Your task to perform on an android device: Play the last video I watched on Youtube Image 0: 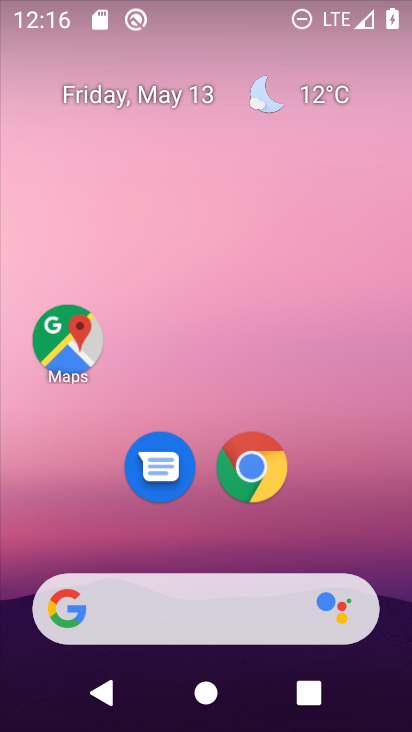
Step 0: drag from (339, 525) to (274, 15)
Your task to perform on an android device: Play the last video I watched on Youtube Image 1: 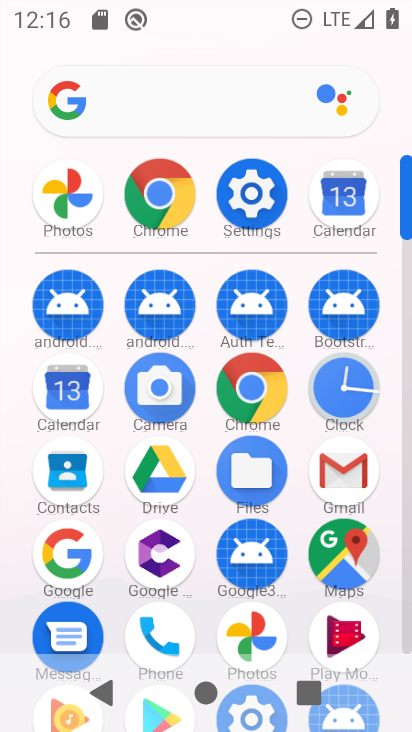
Step 1: drag from (11, 556) to (22, 245)
Your task to perform on an android device: Play the last video I watched on Youtube Image 2: 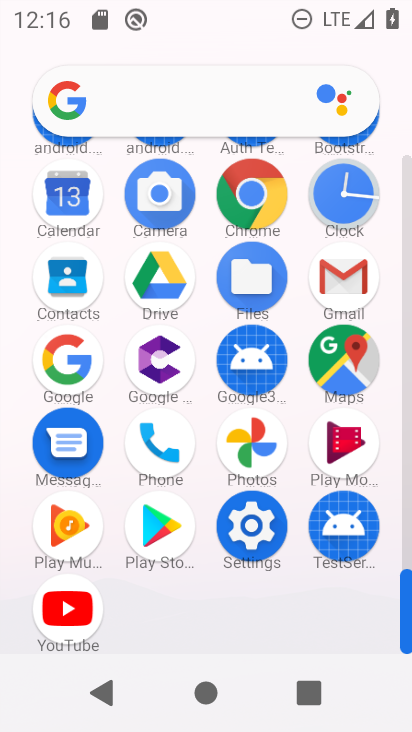
Step 2: click (68, 604)
Your task to perform on an android device: Play the last video I watched on Youtube Image 3: 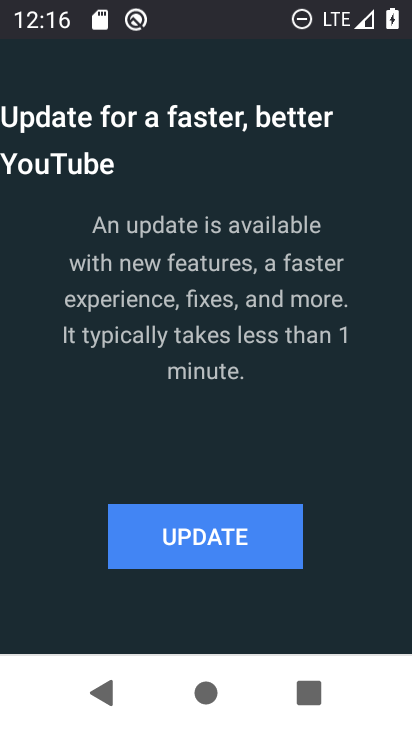
Step 3: click (174, 517)
Your task to perform on an android device: Play the last video I watched on Youtube Image 4: 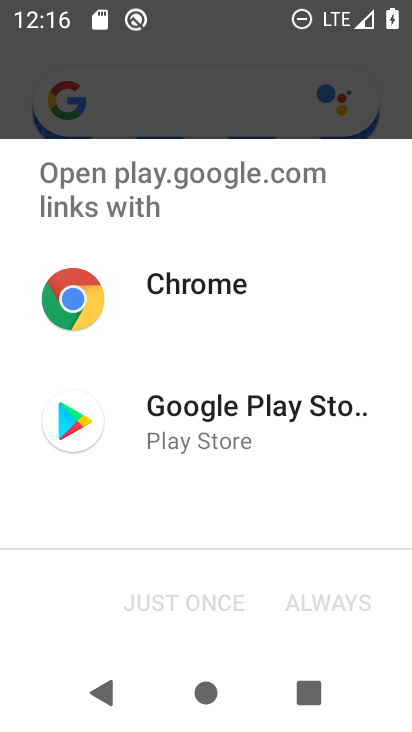
Step 4: click (187, 449)
Your task to perform on an android device: Play the last video I watched on Youtube Image 5: 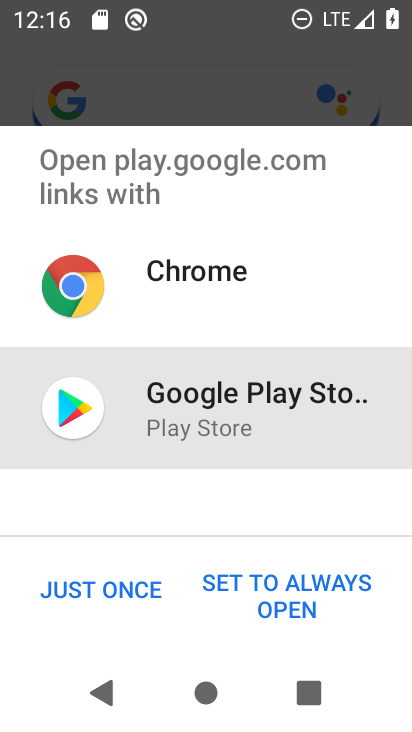
Step 5: click (114, 586)
Your task to perform on an android device: Play the last video I watched on Youtube Image 6: 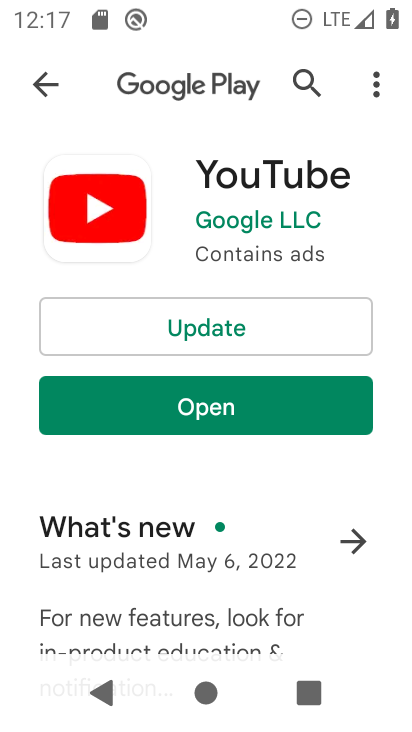
Step 6: click (243, 308)
Your task to perform on an android device: Play the last video I watched on Youtube Image 7: 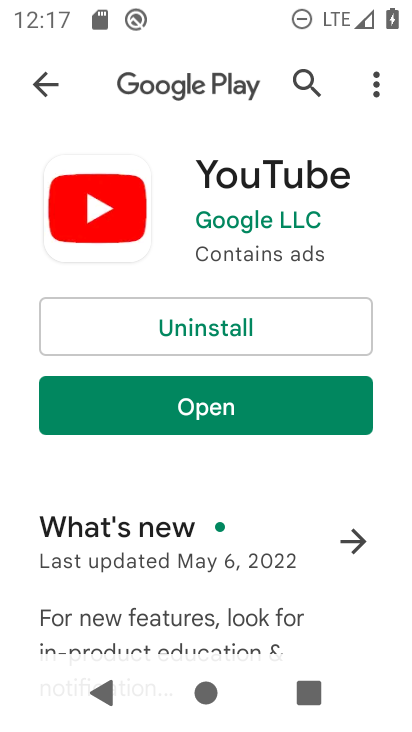
Step 7: click (215, 412)
Your task to perform on an android device: Play the last video I watched on Youtube Image 8: 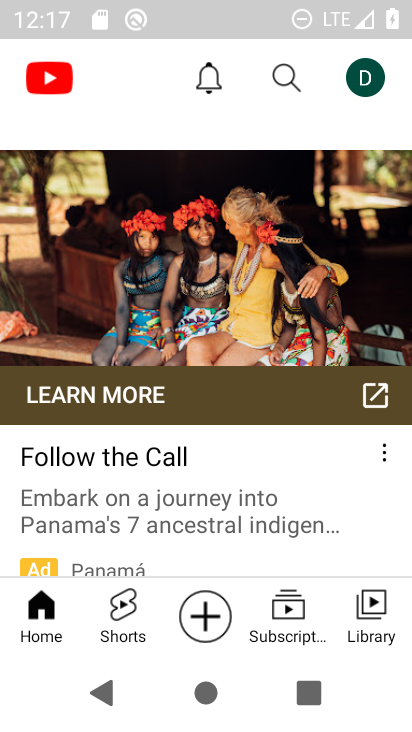
Step 8: click (366, 630)
Your task to perform on an android device: Play the last video I watched on Youtube Image 9: 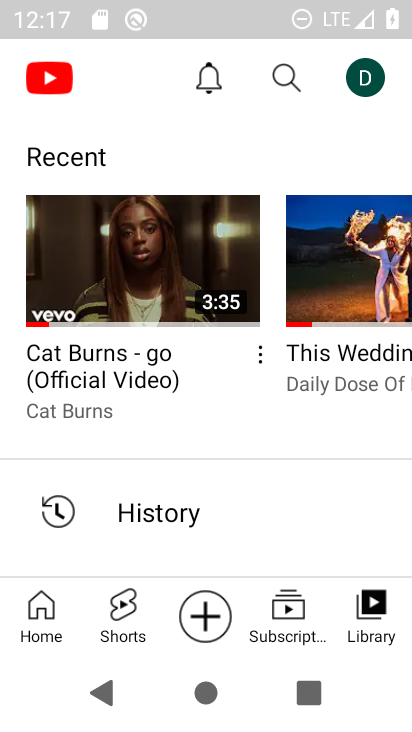
Step 9: click (156, 238)
Your task to perform on an android device: Play the last video I watched on Youtube Image 10: 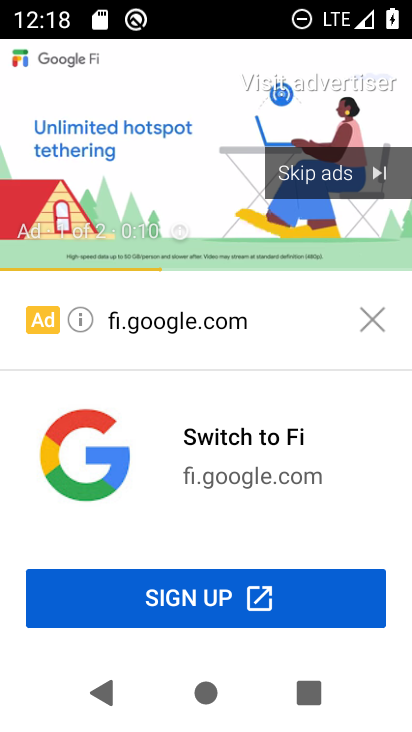
Step 10: click (332, 159)
Your task to perform on an android device: Play the last video I watched on Youtube Image 11: 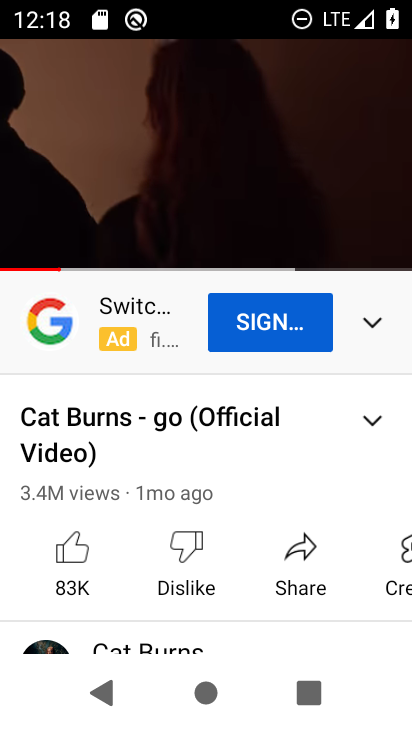
Step 11: task complete